Your task to perform on an android device: change your default location settings in chrome Image 0: 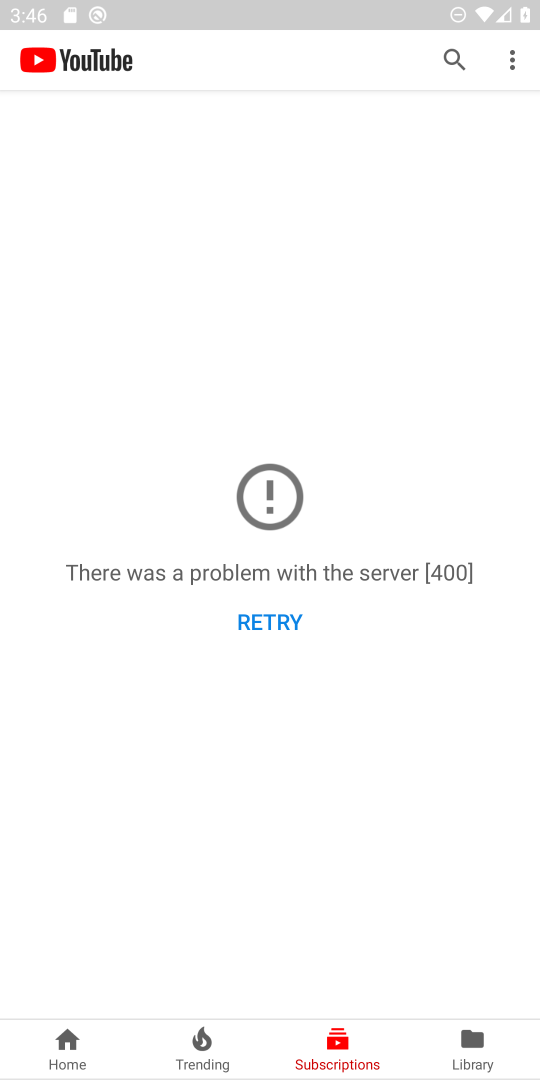
Step 0: press home button
Your task to perform on an android device: change your default location settings in chrome Image 1: 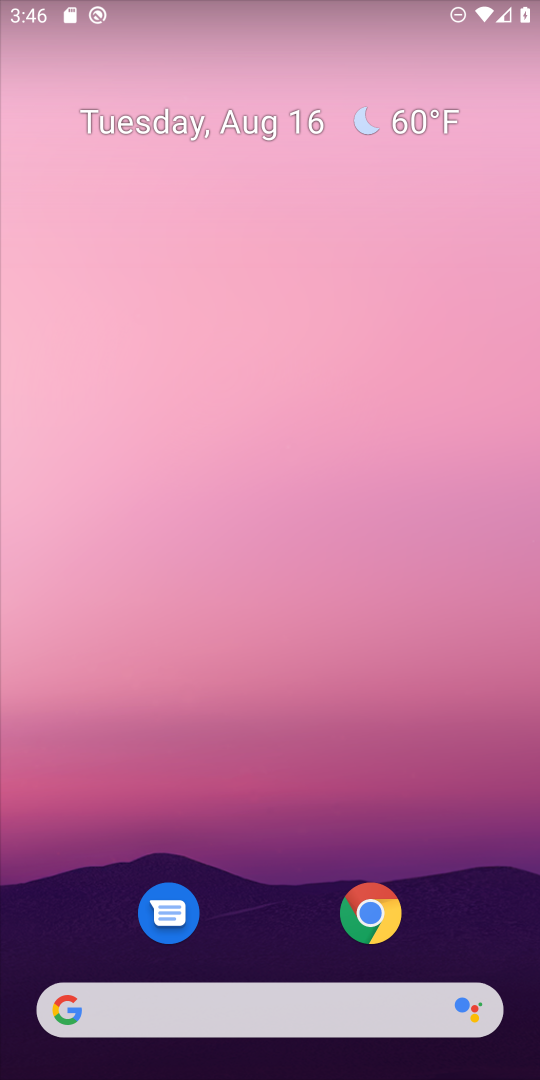
Step 1: click (373, 917)
Your task to perform on an android device: change your default location settings in chrome Image 2: 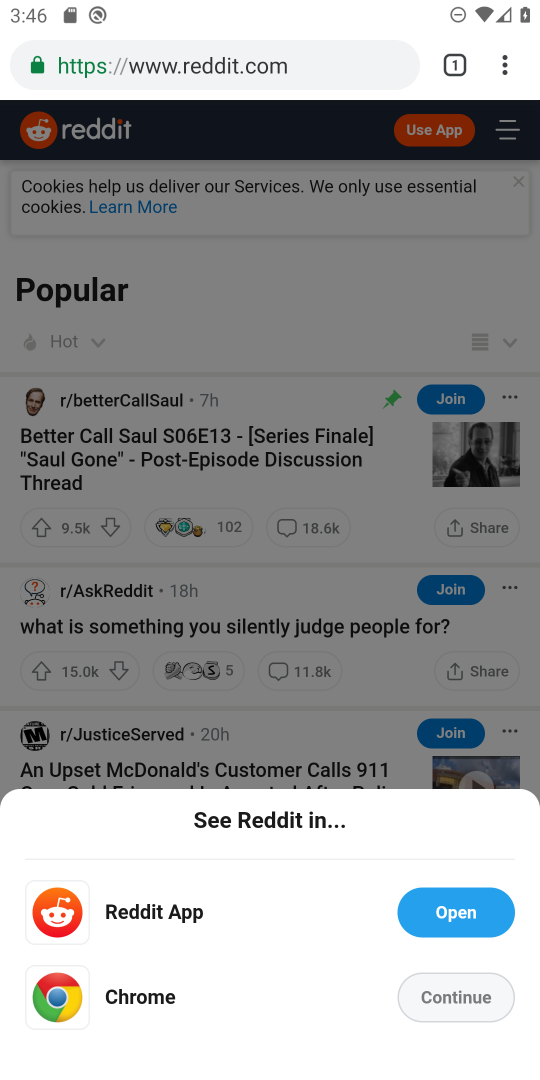
Step 2: click (498, 74)
Your task to perform on an android device: change your default location settings in chrome Image 3: 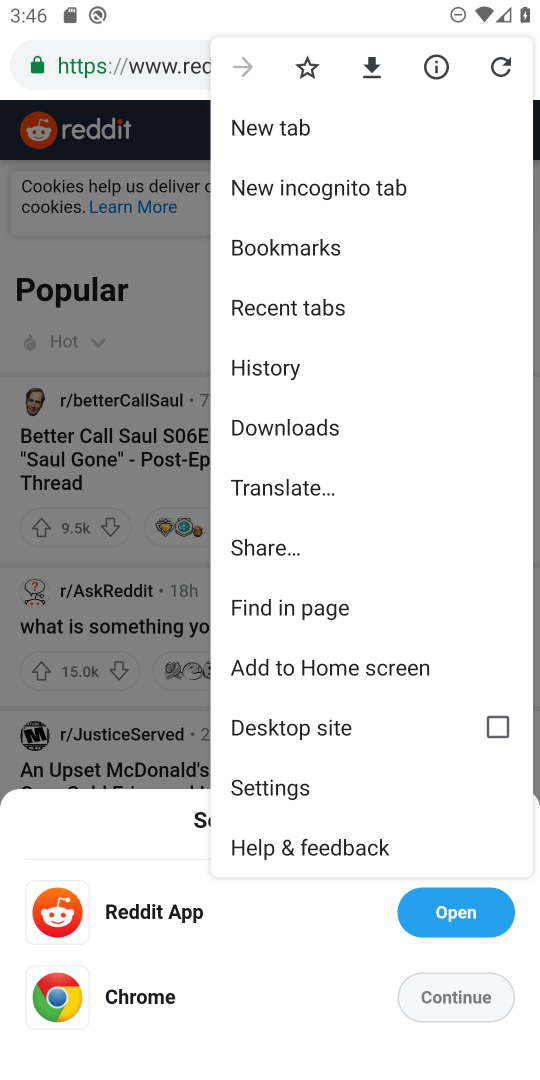
Step 3: click (265, 781)
Your task to perform on an android device: change your default location settings in chrome Image 4: 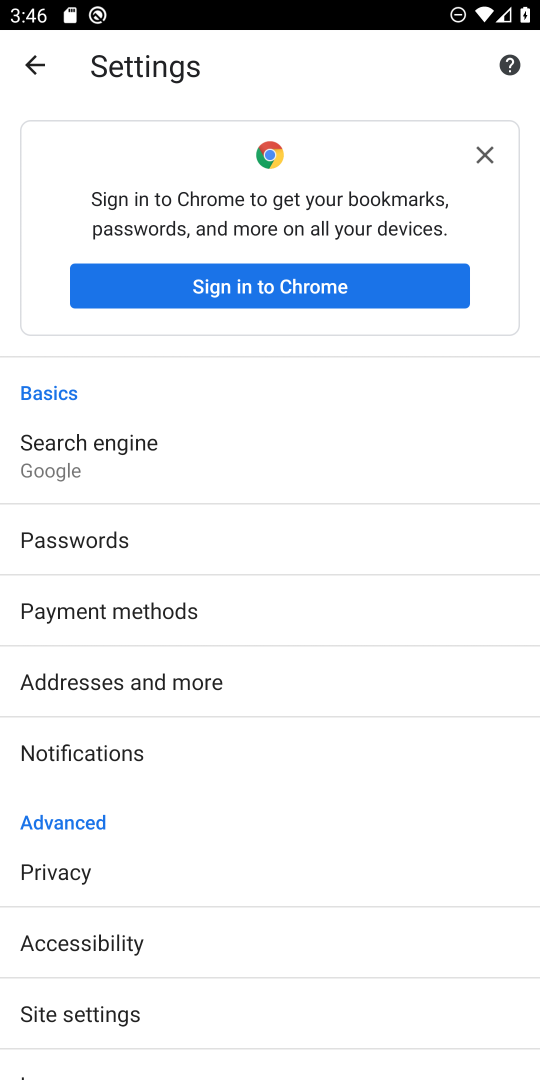
Step 4: drag from (284, 946) to (274, 471)
Your task to perform on an android device: change your default location settings in chrome Image 5: 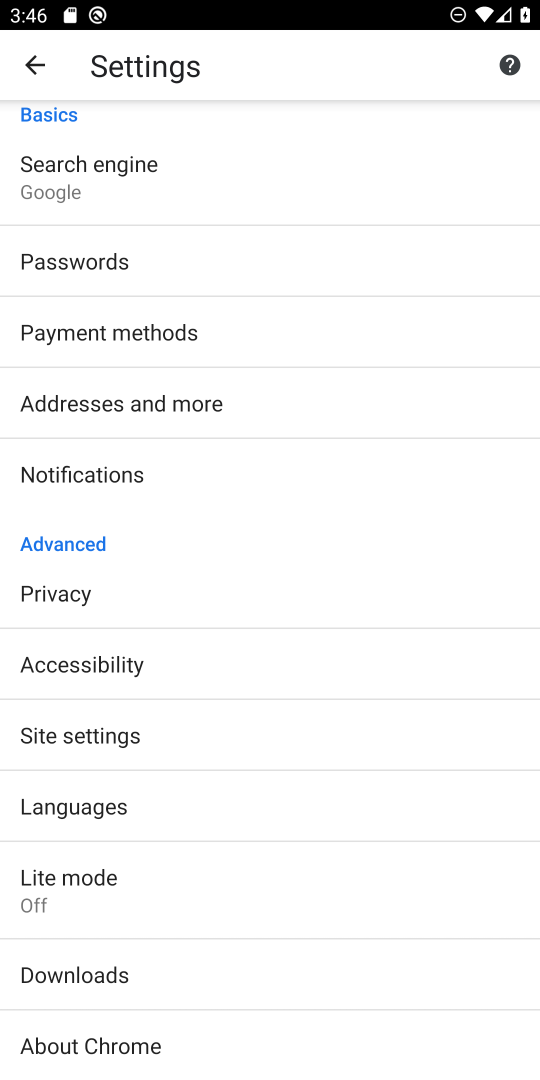
Step 5: click (72, 741)
Your task to perform on an android device: change your default location settings in chrome Image 6: 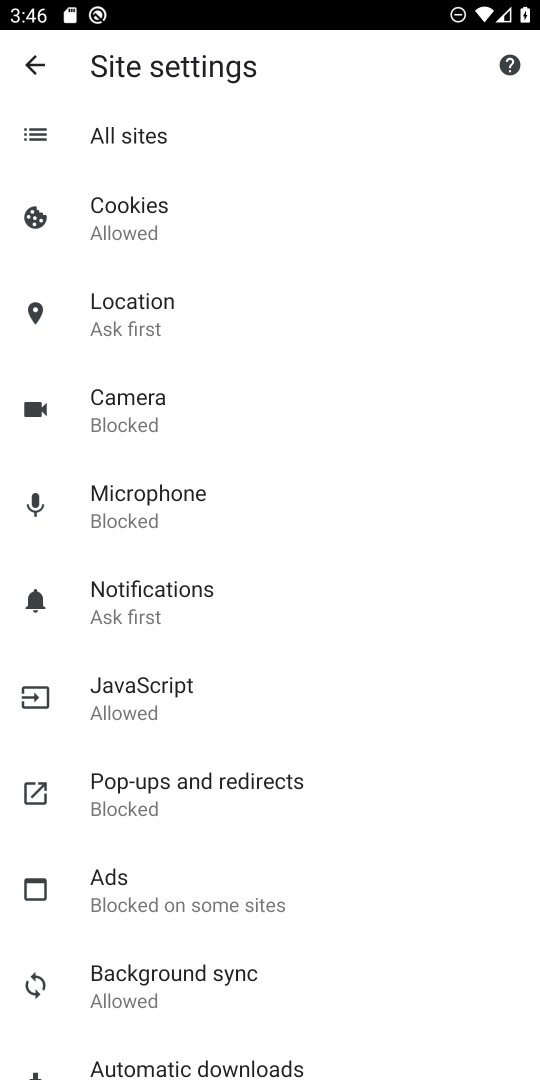
Step 6: click (133, 306)
Your task to perform on an android device: change your default location settings in chrome Image 7: 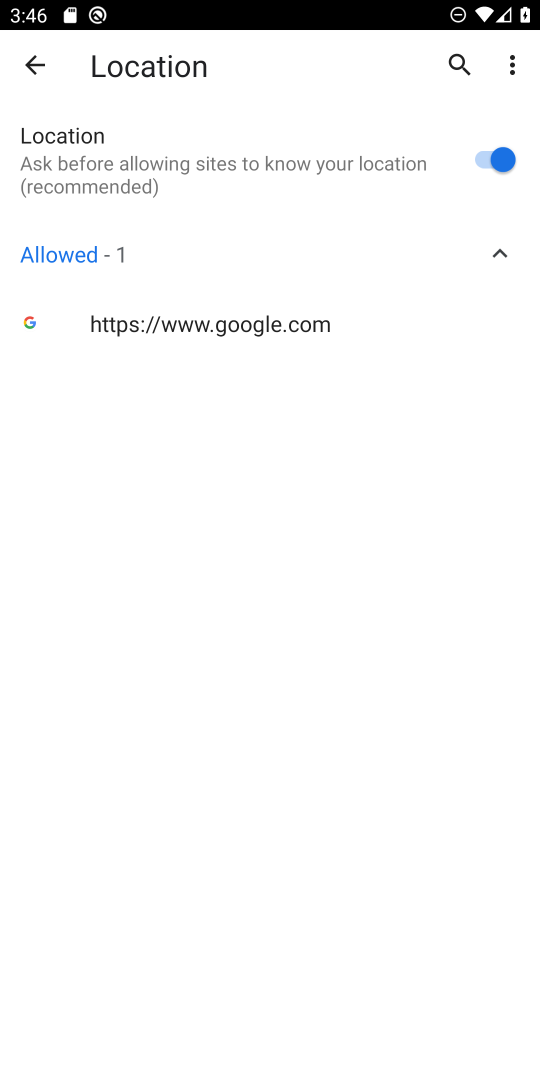
Step 7: click (477, 156)
Your task to perform on an android device: change your default location settings in chrome Image 8: 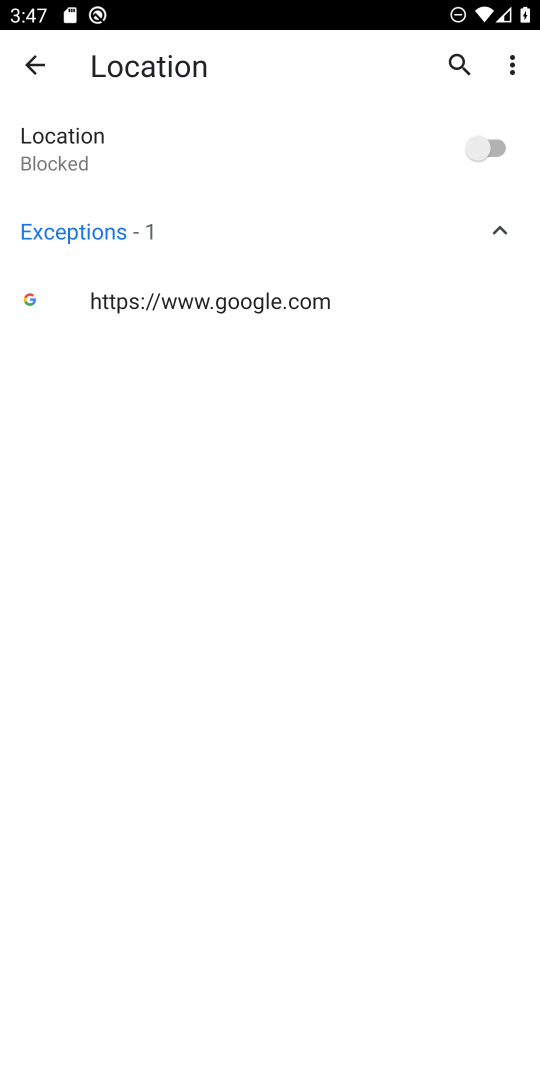
Step 8: task complete